Your task to perform on an android device: Set the phone to "Do not disturb". Image 0: 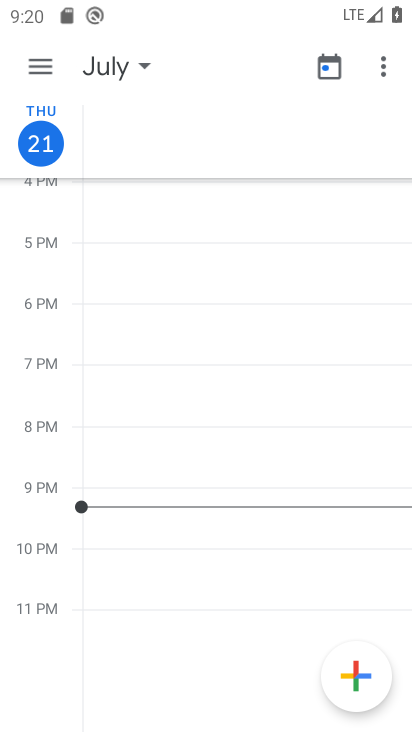
Step 0: press home button
Your task to perform on an android device: Set the phone to "Do not disturb". Image 1: 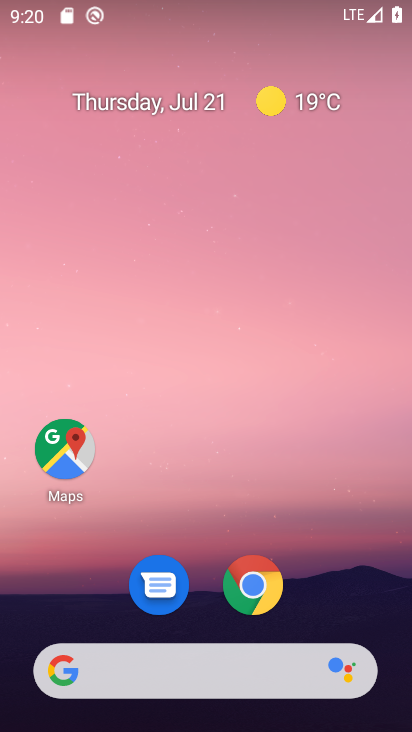
Step 1: drag from (292, 528) to (335, 43)
Your task to perform on an android device: Set the phone to "Do not disturb". Image 2: 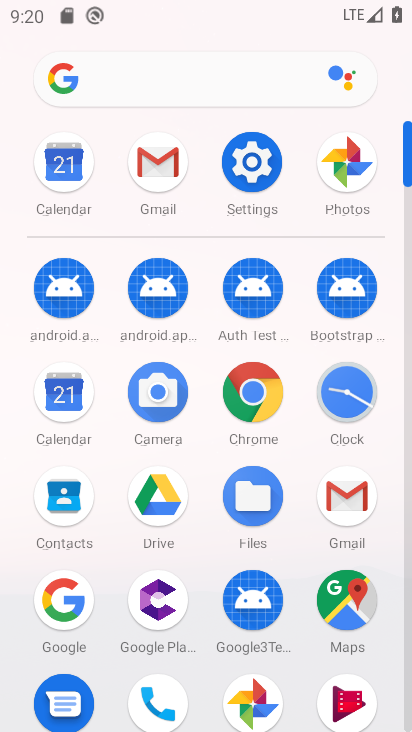
Step 2: drag from (199, 450) to (214, 314)
Your task to perform on an android device: Set the phone to "Do not disturb". Image 3: 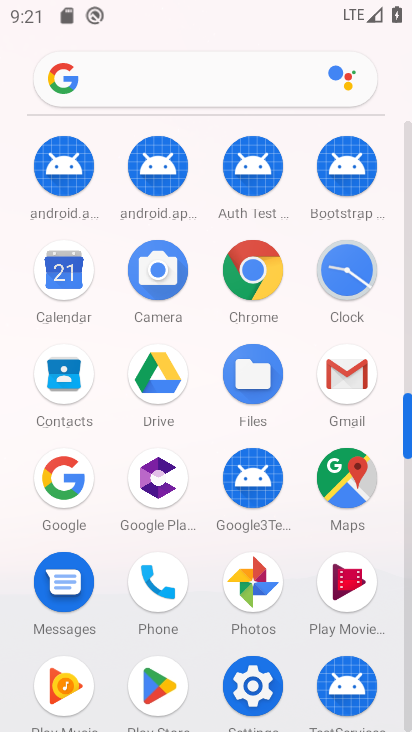
Step 3: drag from (219, 210) to (234, 451)
Your task to perform on an android device: Set the phone to "Do not disturb". Image 4: 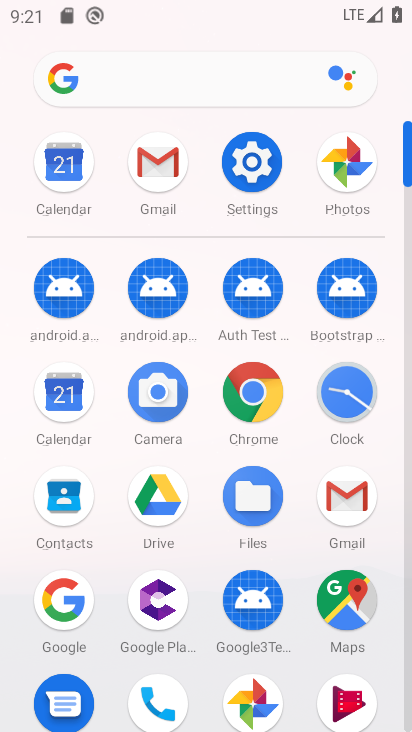
Step 4: click (264, 162)
Your task to perform on an android device: Set the phone to "Do not disturb". Image 5: 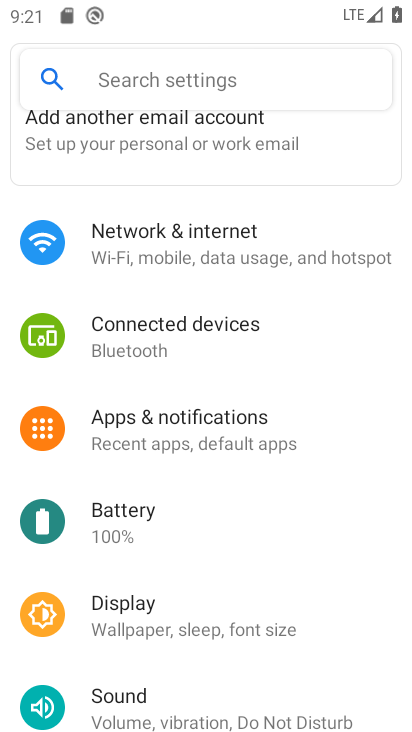
Step 5: drag from (190, 563) to (229, 298)
Your task to perform on an android device: Set the phone to "Do not disturb". Image 6: 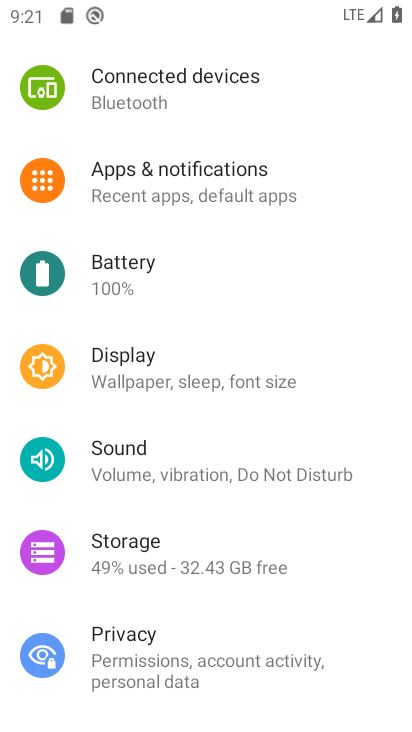
Step 6: click (202, 460)
Your task to perform on an android device: Set the phone to "Do not disturb". Image 7: 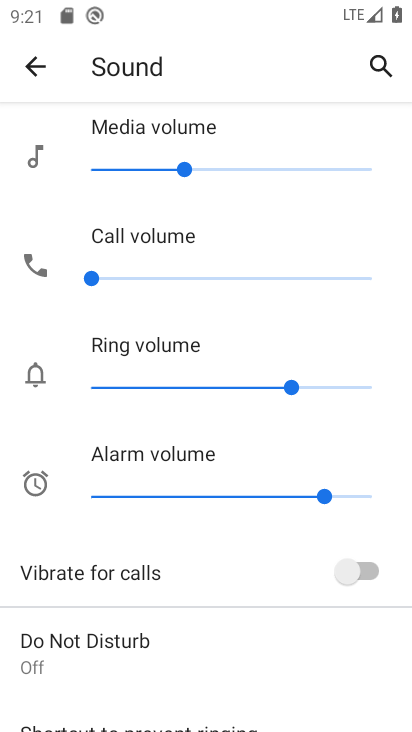
Step 7: click (102, 655)
Your task to perform on an android device: Set the phone to "Do not disturb". Image 8: 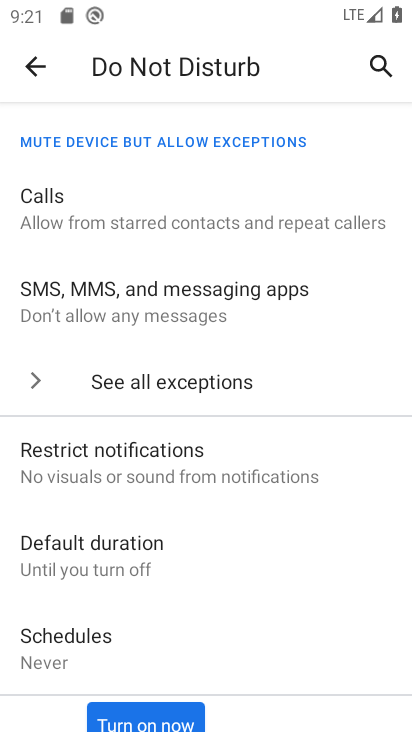
Step 8: click (183, 709)
Your task to perform on an android device: Set the phone to "Do not disturb". Image 9: 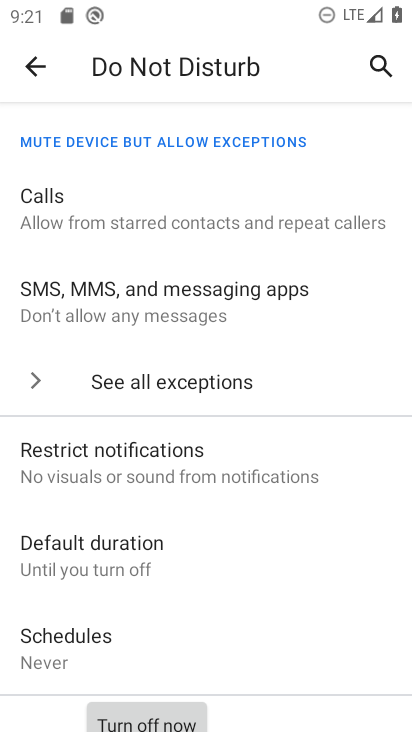
Step 9: click (41, 63)
Your task to perform on an android device: Set the phone to "Do not disturb". Image 10: 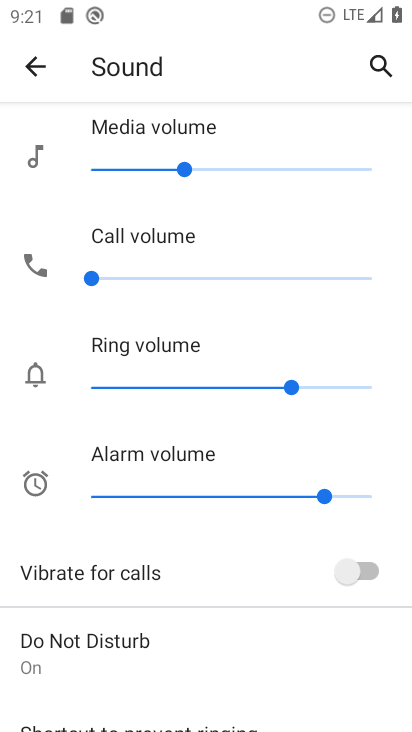
Step 10: task complete